Your task to perform on an android device: open app "Indeed Job Search" (install if not already installed) and go to login screen Image 0: 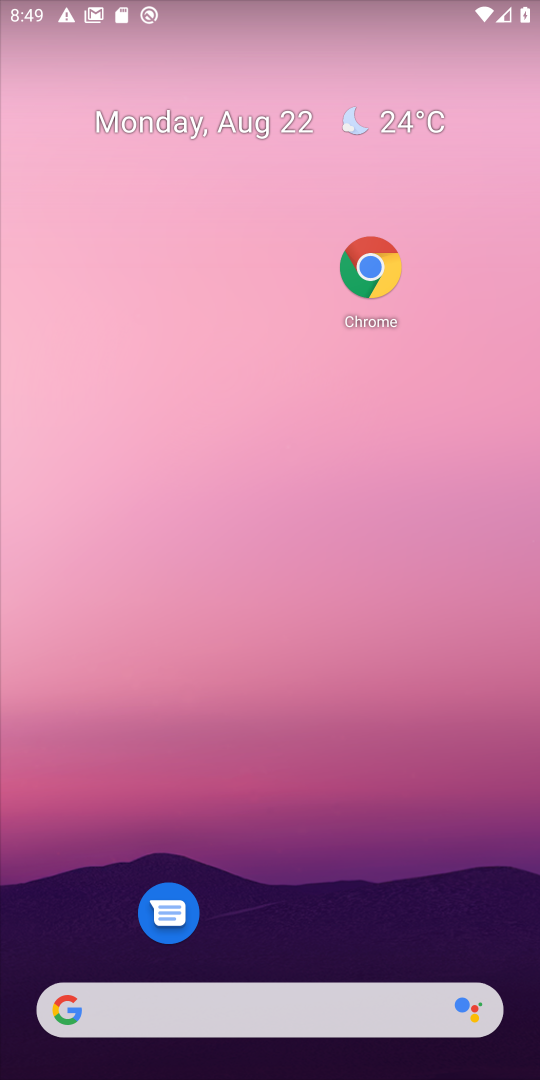
Step 0: drag from (380, 966) to (373, 131)
Your task to perform on an android device: open app "Indeed Job Search" (install if not already installed) and go to login screen Image 1: 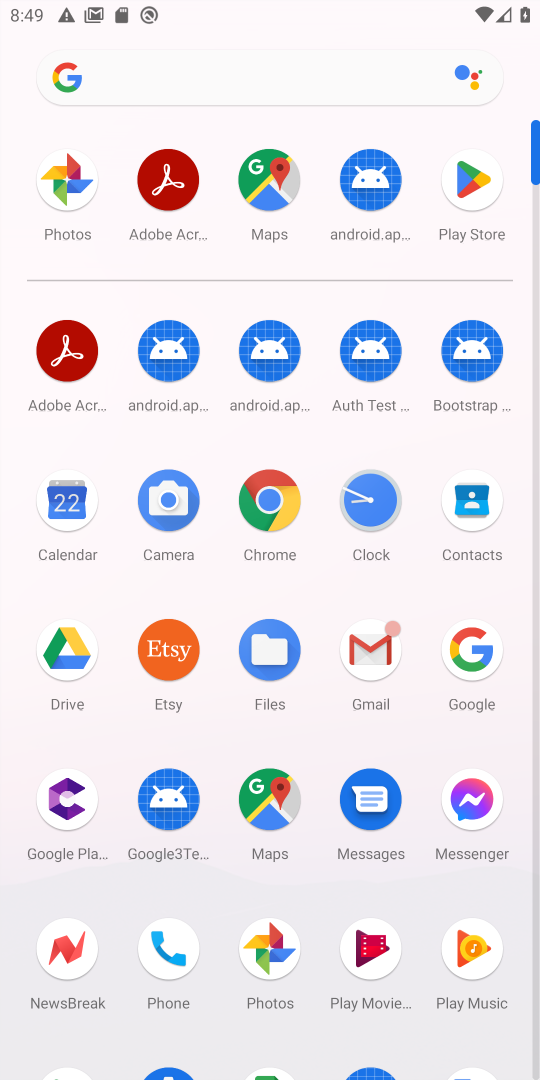
Step 1: click (483, 177)
Your task to perform on an android device: open app "Indeed Job Search" (install if not already installed) and go to login screen Image 2: 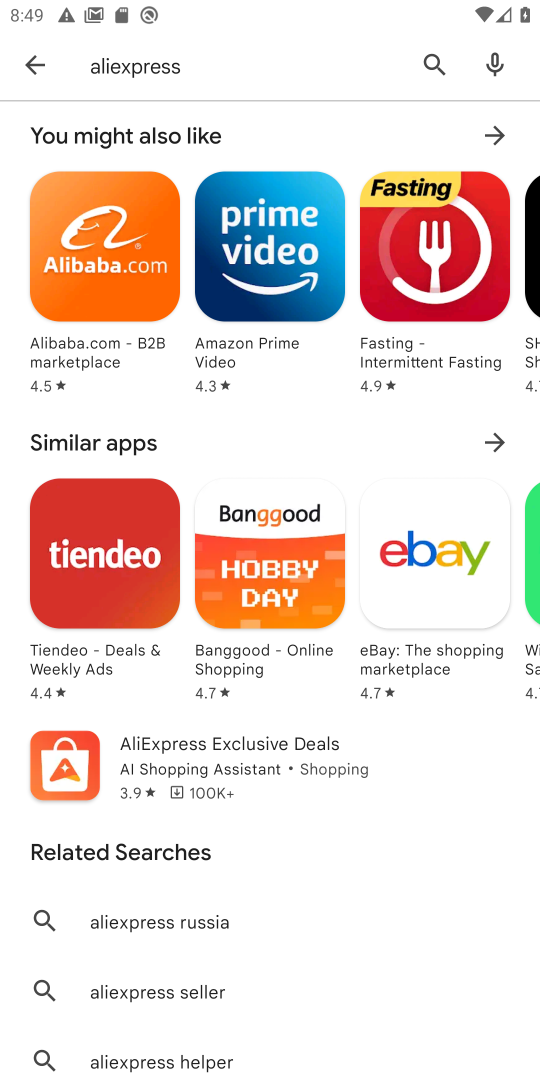
Step 2: click (439, 58)
Your task to perform on an android device: open app "Indeed Job Search" (install if not already installed) and go to login screen Image 3: 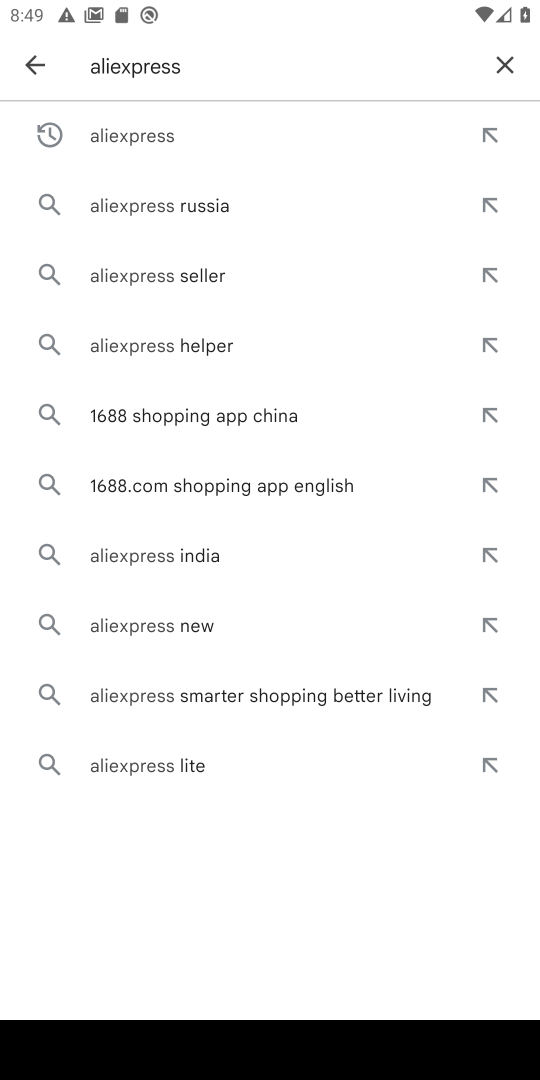
Step 3: click (507, 61)
Your task to perform on an android device: open app "Indeed Job Search" (install if not already installed) and go to login screen Image 4: 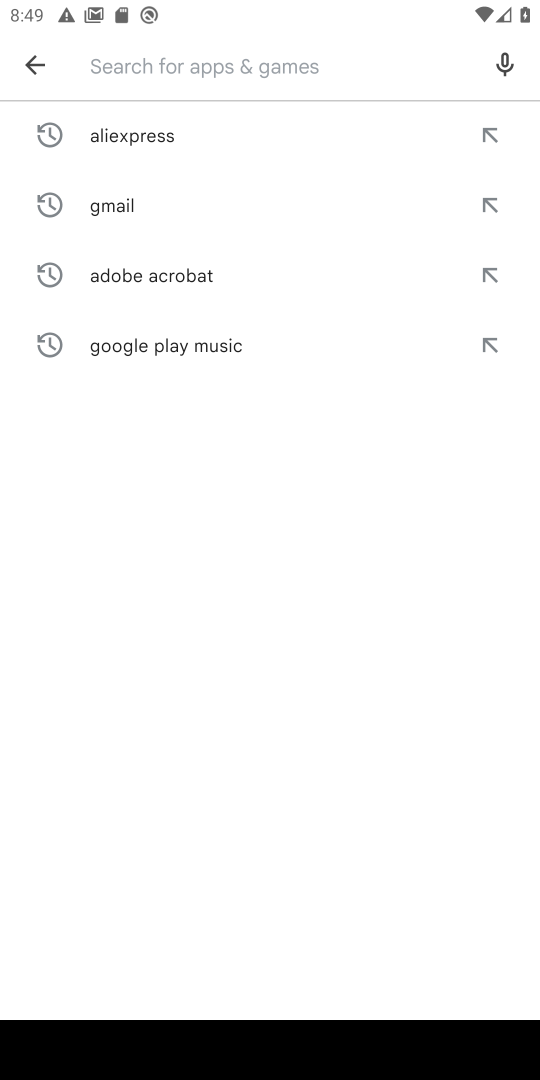
Step 4: type "indeed job search"
Your task to perform on an android device: open app "Indeed Job Search" (install if not already installed) and go to login screen Image 5: 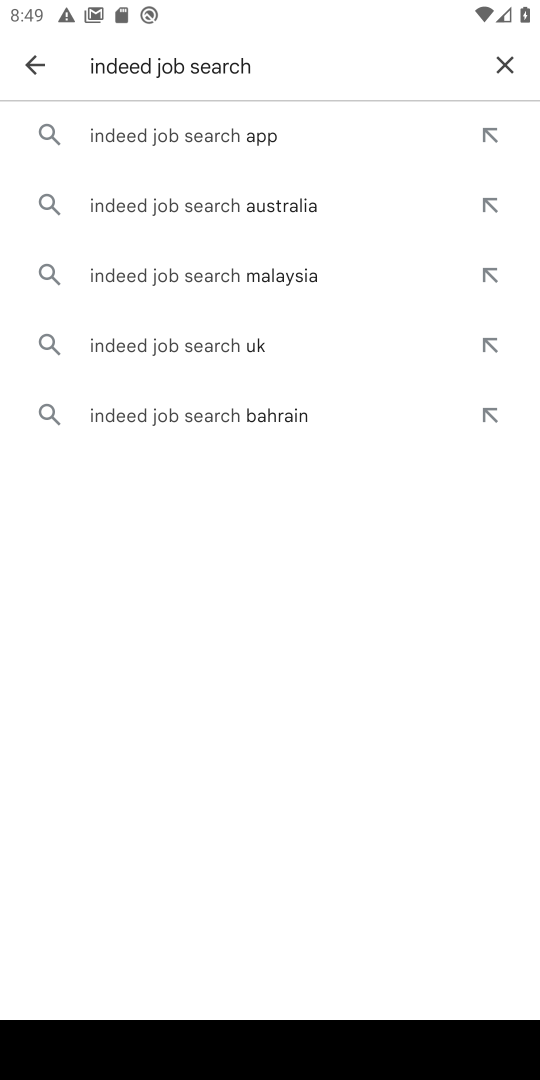
Step 5: click (271, 130)
Your task to perform on an android device: open app "Indeed Job Search" (install if not already installed) and go to login screen Image 6: 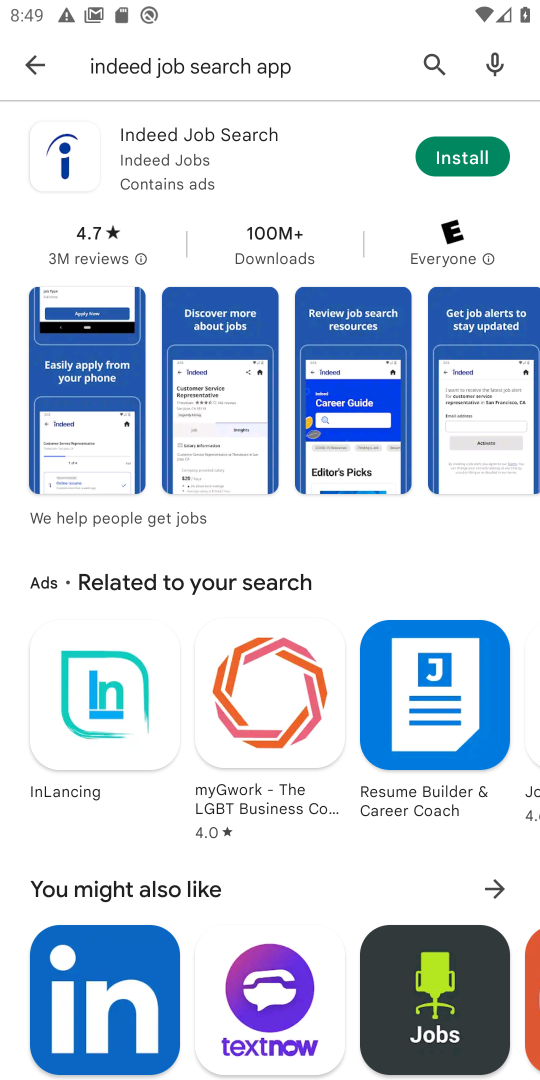
Step 6: click (441, 156)
Your task to perform on an android device: open app "Indeed Job Search" (install if not already installed) and go to login screen Image 7: 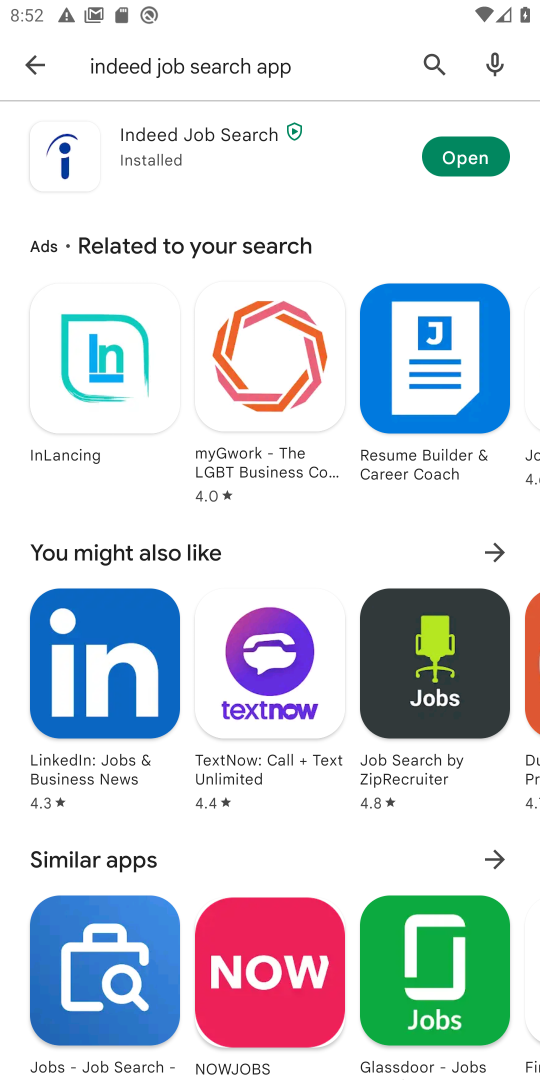
Step 7: click (454, 169)
Your task to perform on an android device: open app "Indeed Job Search" (install if not already installed) and go to login screen Image 8: 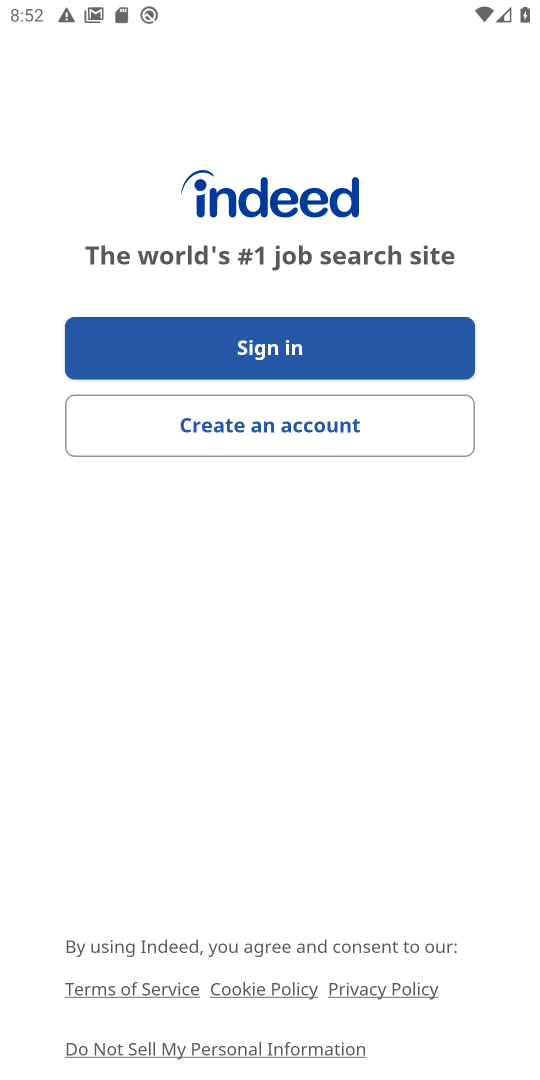
Step 8: click (373, 341)
Your task to perform on an android device: open app "Indeed Job Search" (install if not already installed) and go to login screen Image 9: 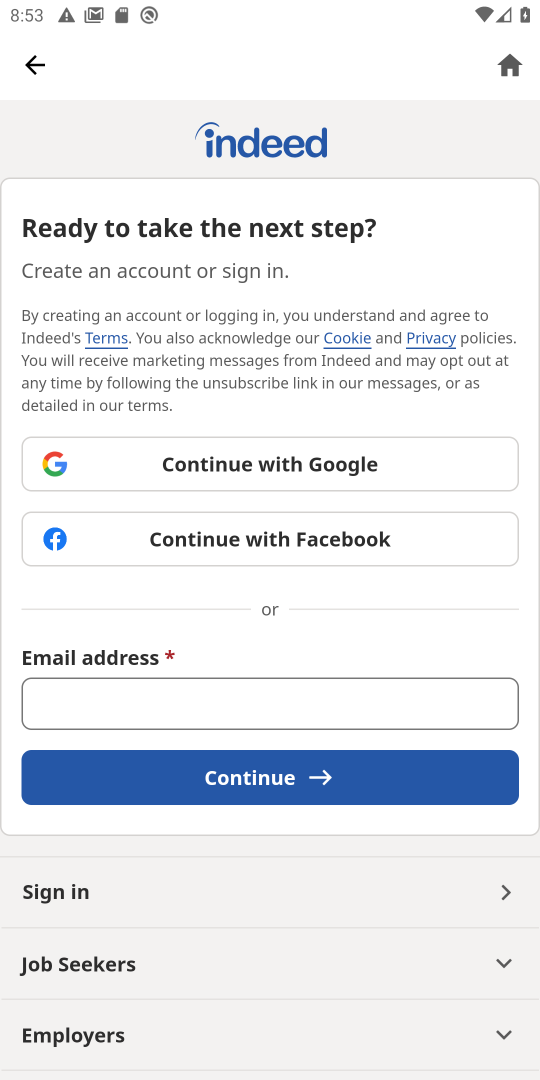
Step 9: task complete